Your task to perform on an android device: change timer sound Image 0: 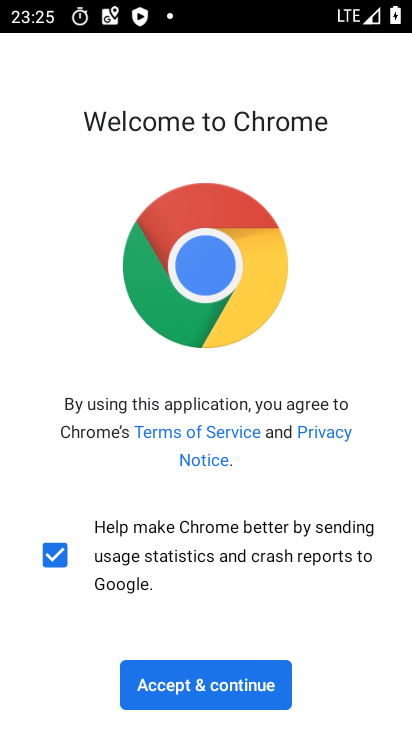
Step 0: press home button
Your task to perform on an android device: change timer sound Image 1: 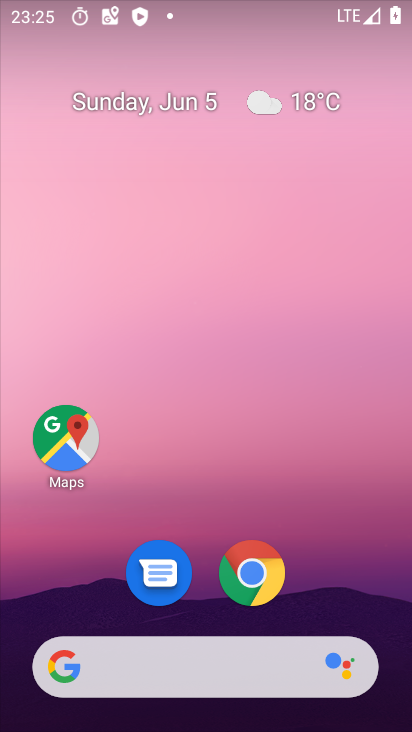
Step 1: drag from (224, 640) to (230, 108)
Your task to perform on an android device: change timer sound Image 2: 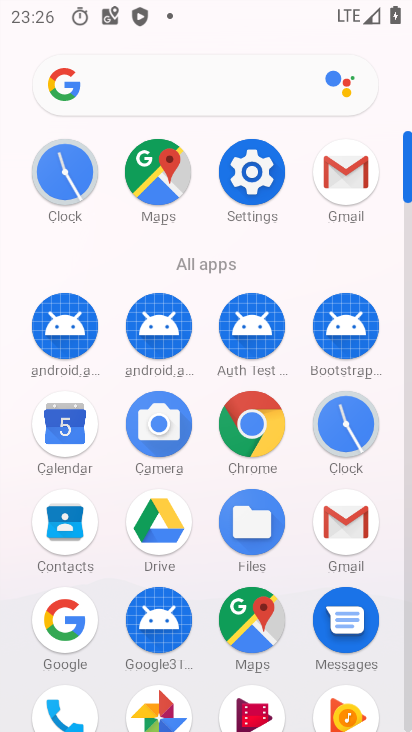
Step 2: click (253, 170)
Your task to perform on an android device: change timer sound Image 3: 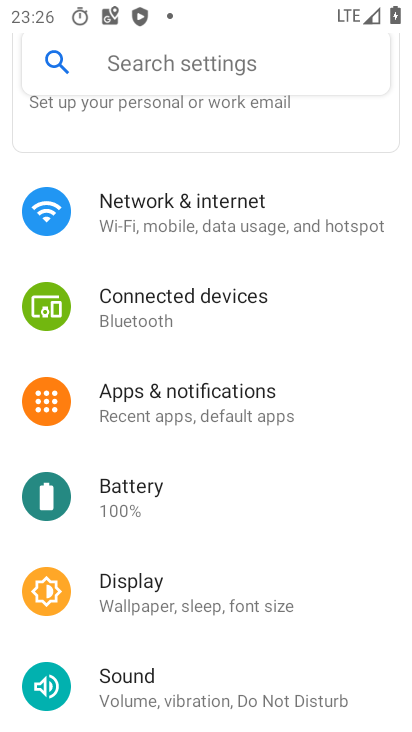
Step 3: press home button
Your task to perform on an android device: change timer sound Image 4: 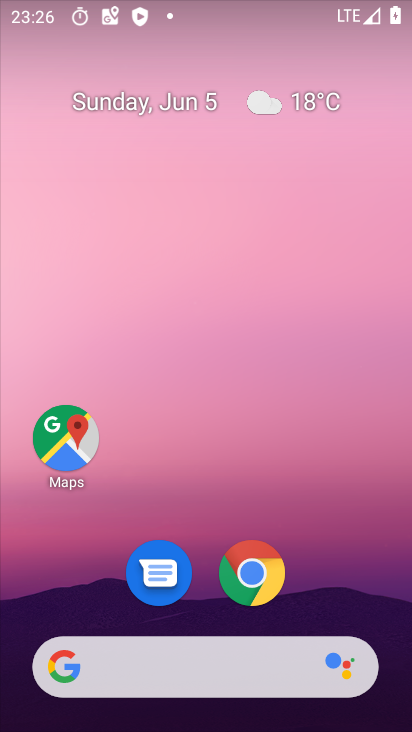
Step 4: drag from (173, 560) to (186, 172)
Your task to perform on an android device: change timer sound Image 5: 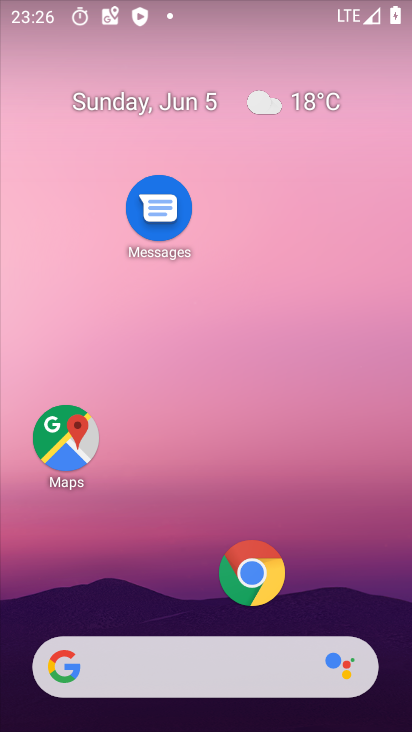
Step 5: drag from (194, 664) to (167, 73)
Your task to perform on an android device: change timer sound Image 6: 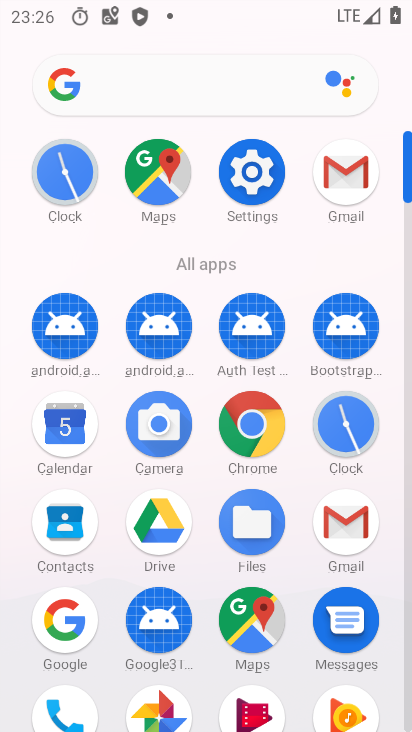
Step 6: click (356, 429)
Your task to perform on an android device: change timer sound Image 7: 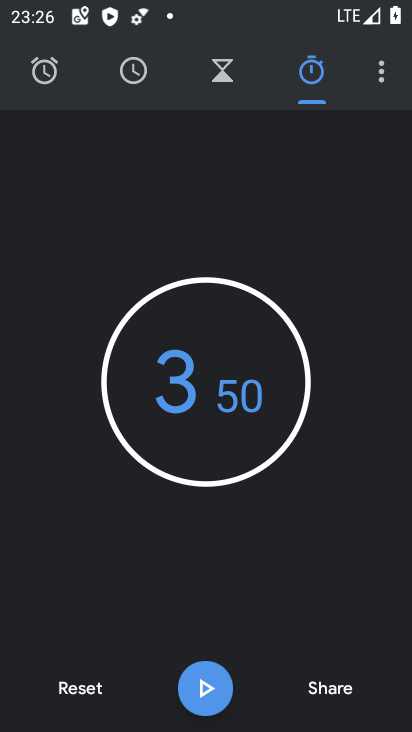
Step 7: click (381, 72)
Your task to perform on an android device: change timer sound Image 8: 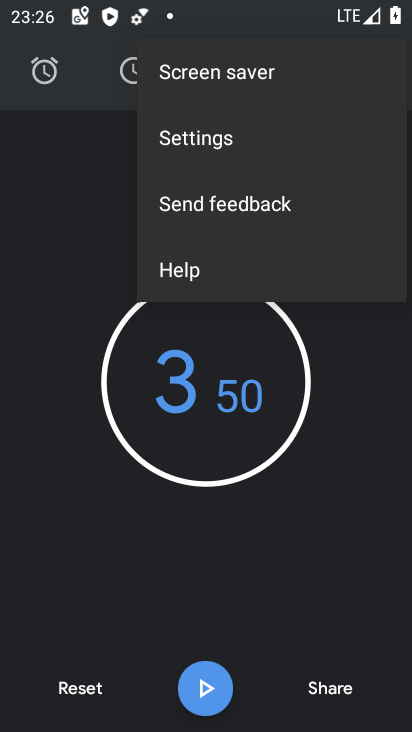
Step 8: click (183, 139)
Your task to perform on an android device: change timer sound Image 9: 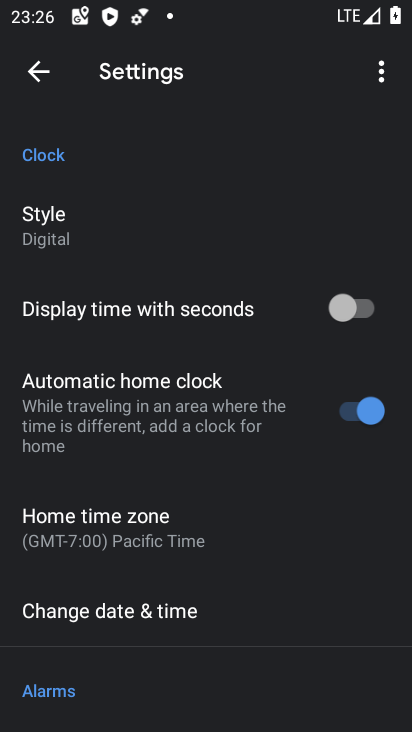
Step 9: drag from (158, 536) to (162, 156)
Your task to perform on an android device: change timer sound Image 10: 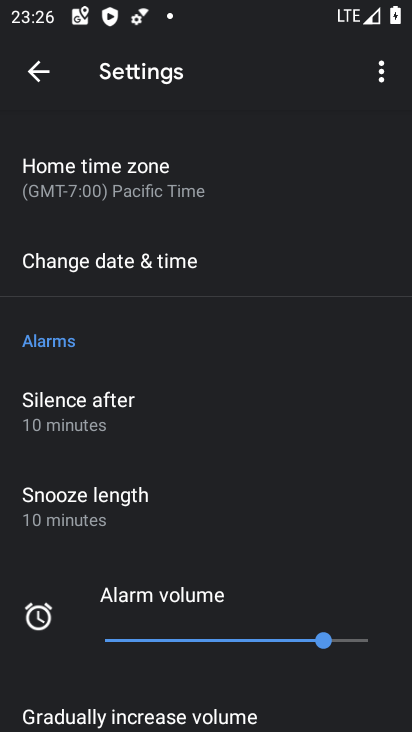
Step 10: drag from (214, 463) to (171, 5)
Your task to perform on an android device: change timer sound Image 11: 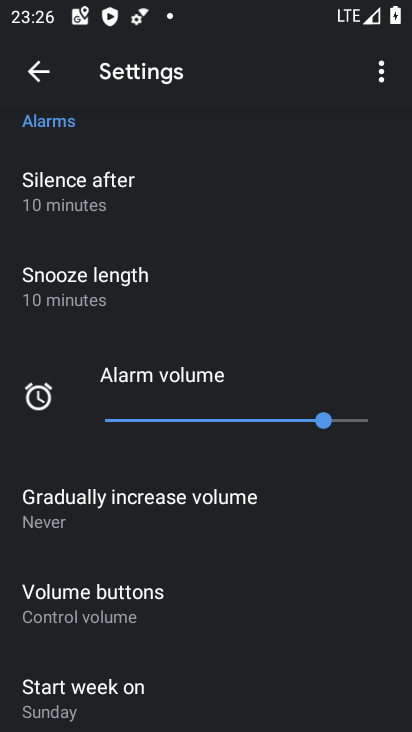
Step 11: drag from (235, 640) to (215, 105)
Your task to perform on an android device: change timer sound Image 12: 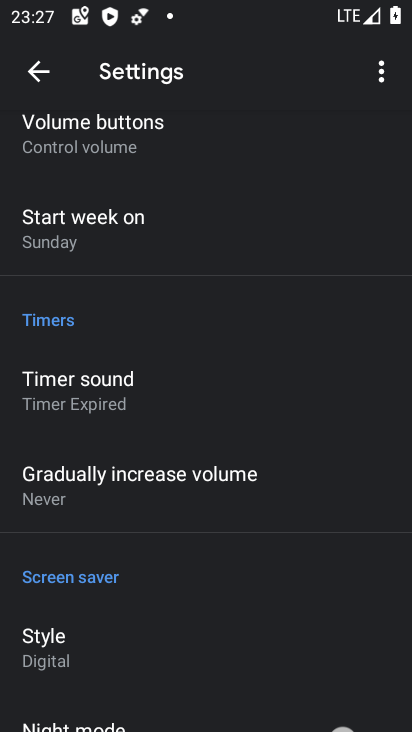
Step 12: click (217, 359)
Your task to perform on an android device: change timer sound Image 13: 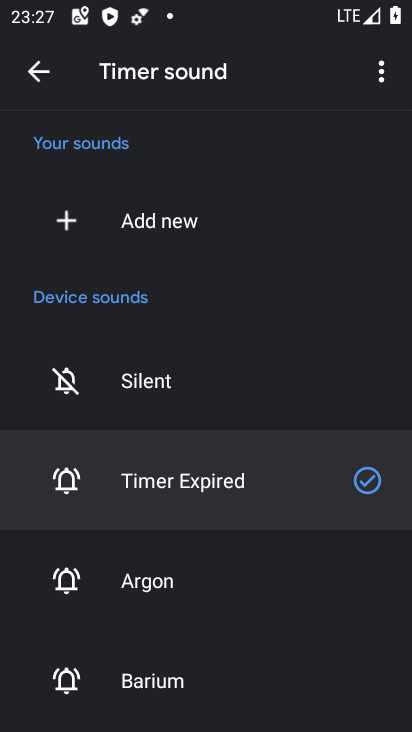
Step 13: click (238, 595)
Your task to perform on an android device: change timer sound Image 14: 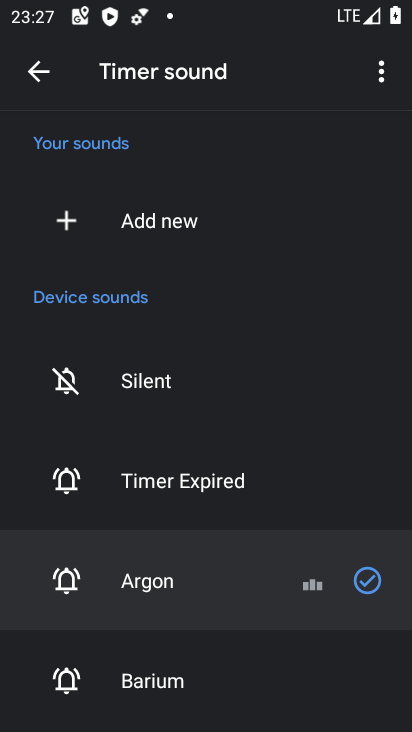
Step 14: task complete